Your task to perform on an android device: Do I have any events tomorrow? Image 0: 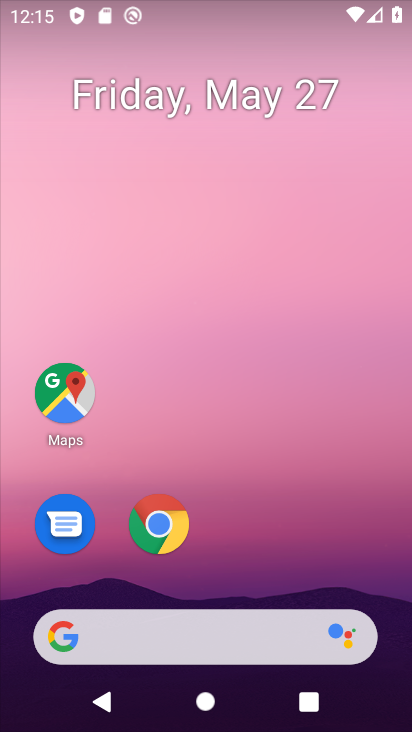
Step 0: drag from (267, 567) to (264, 25)
Your task to perform on an android device: Do I have any events tomorrow? Image 1: 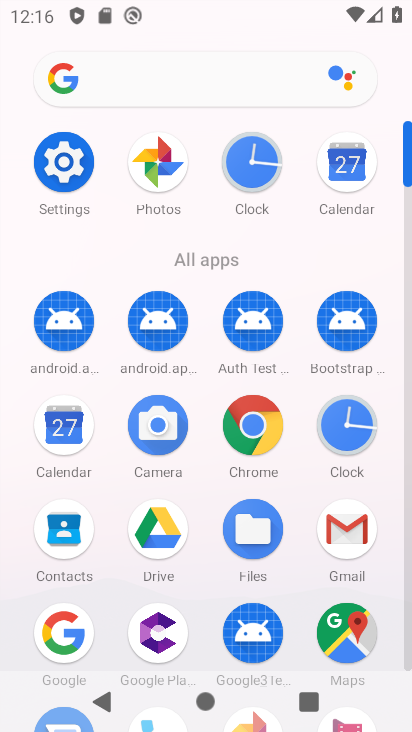
Step 1: click (348, 155)
Your task to perform on an android device: Do I have any events tomorrow? Image 2: 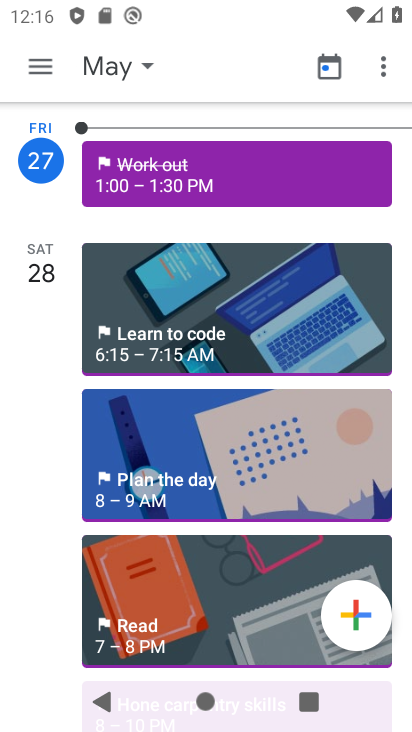
Step 2: task complete